Your task to perform on an android device: check the backup settings in the google photos Image 0: 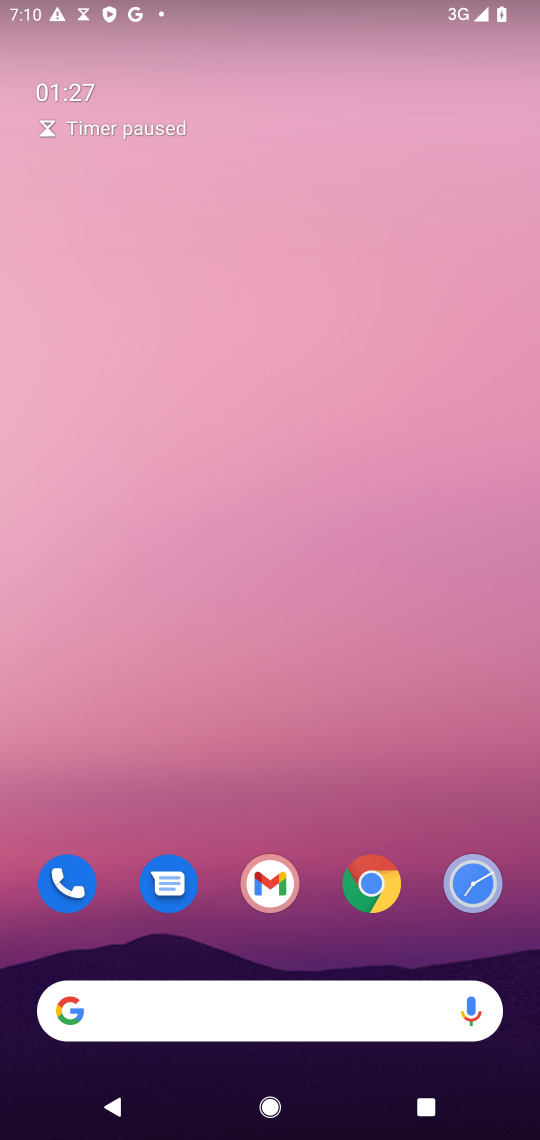
Step 0: drag from (248, 1024) to (409, 118)
Your task to perform on an android device: check the backup settings in the google photos Image 1: 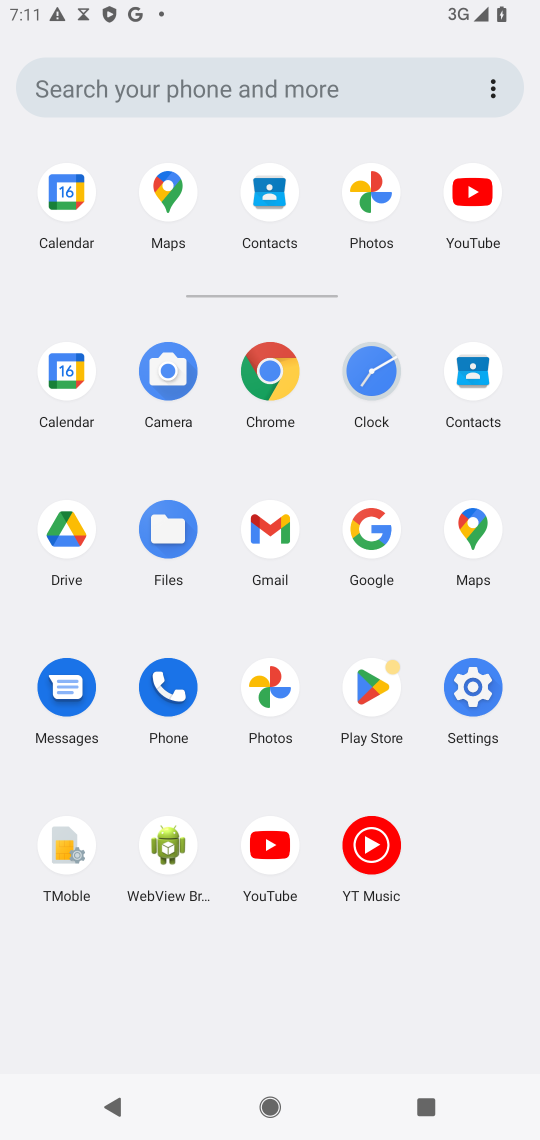
Step 1: click (369, 196)
Your task to perform on an android device: check the backup settings in the google photos Image 2: 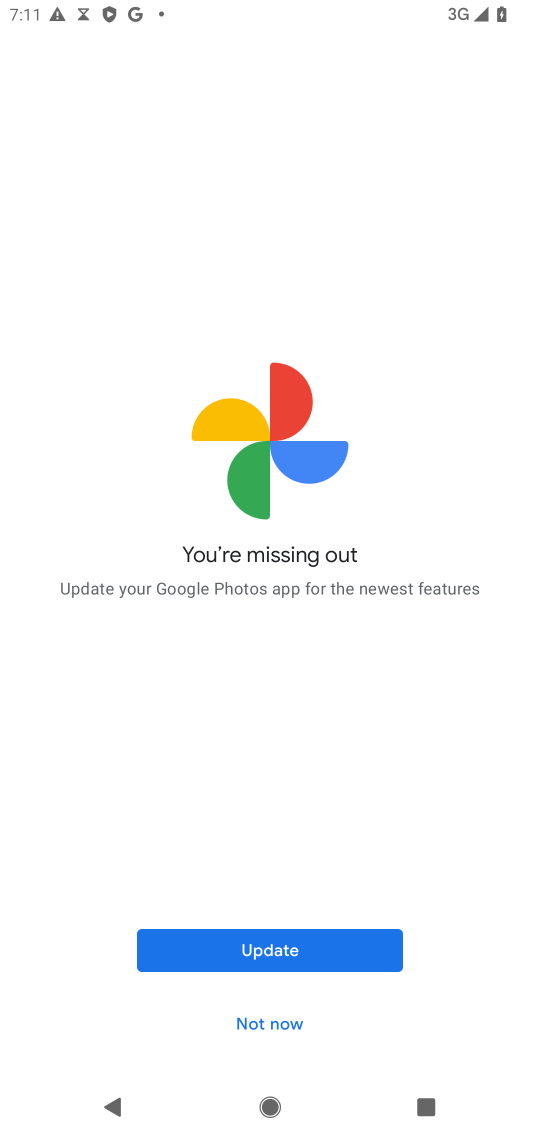
Step 2: click (276, 939)
Your task to perform on an android device: check the backup settings in the google photos Image 3: 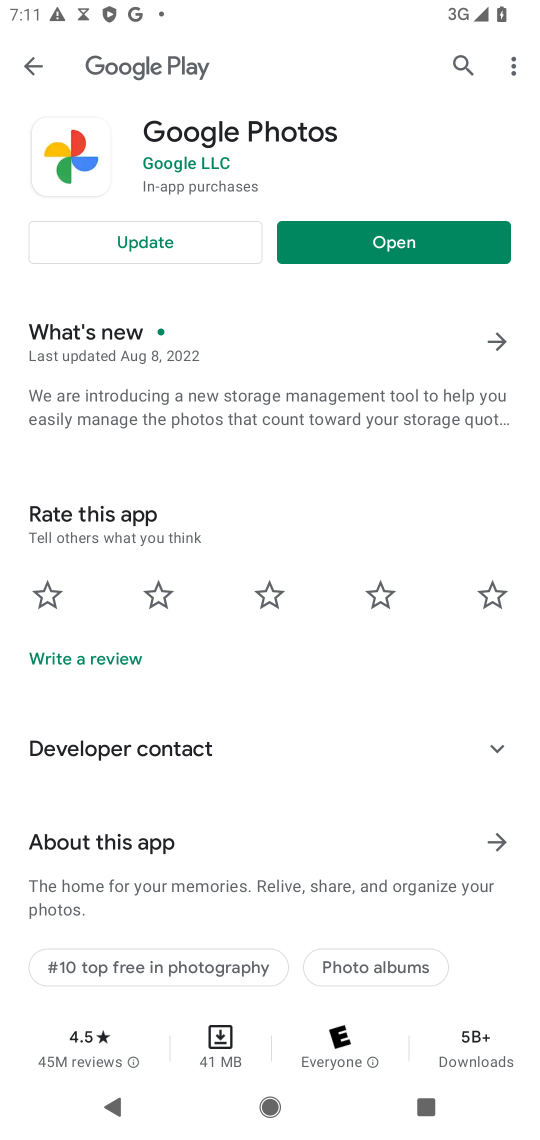
Step 3: click (177, 250)
Your task to perform on an android device: check the backup settings in the google photos Image 4: 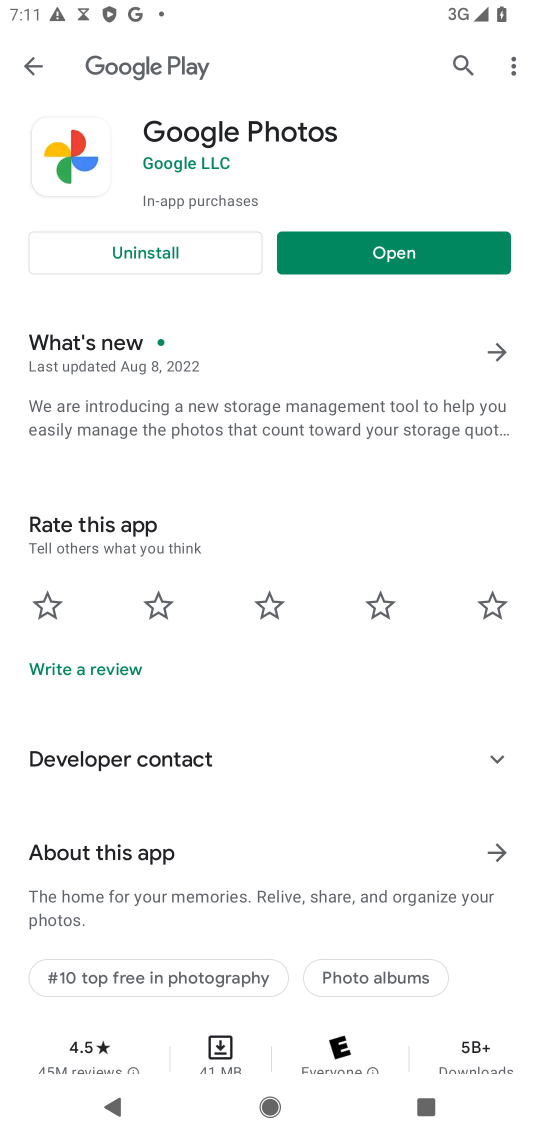
Step 4: click (470, 266)
Your task to perform on an android device: check the backup settings in the google photos Image 5: 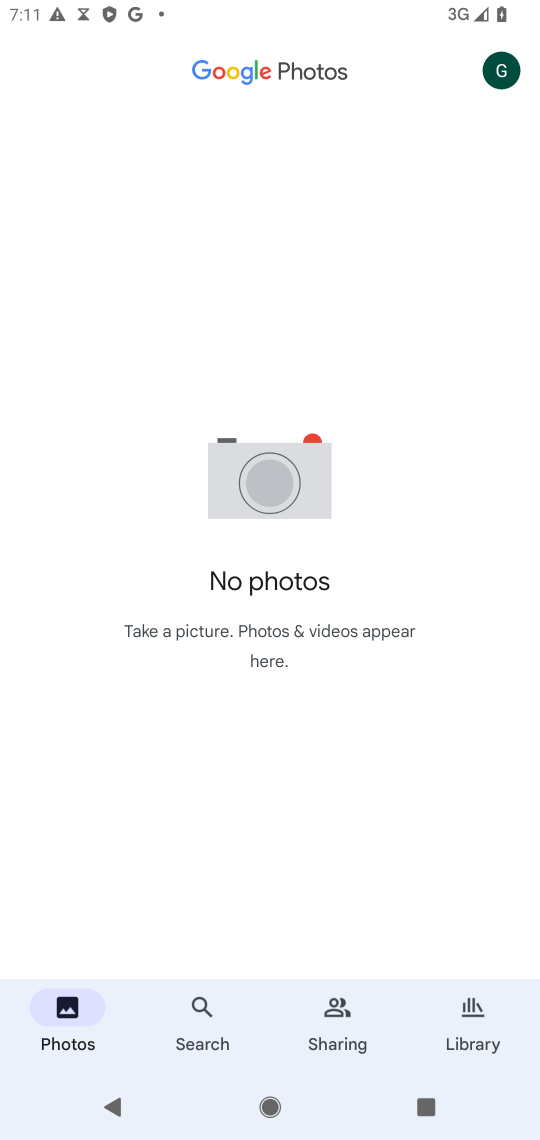
Step 5: click (512, 75)
Your task to perform on an android device: check the backup settings in the google photos Image 6: 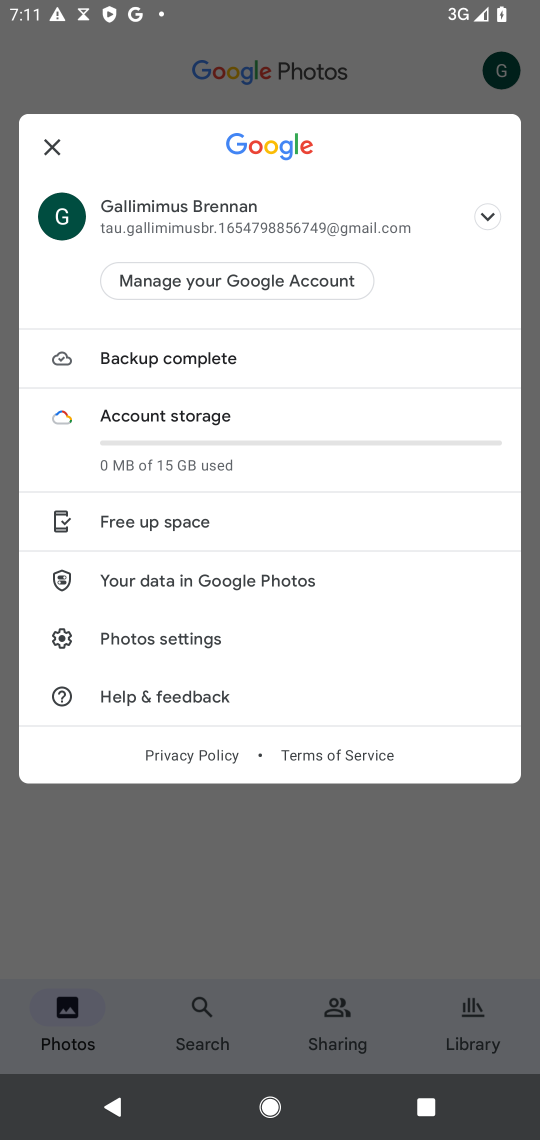
Step 6: click (140, 650)
Your task to perform on an android device: check the backup settings in the google photos Image 7: 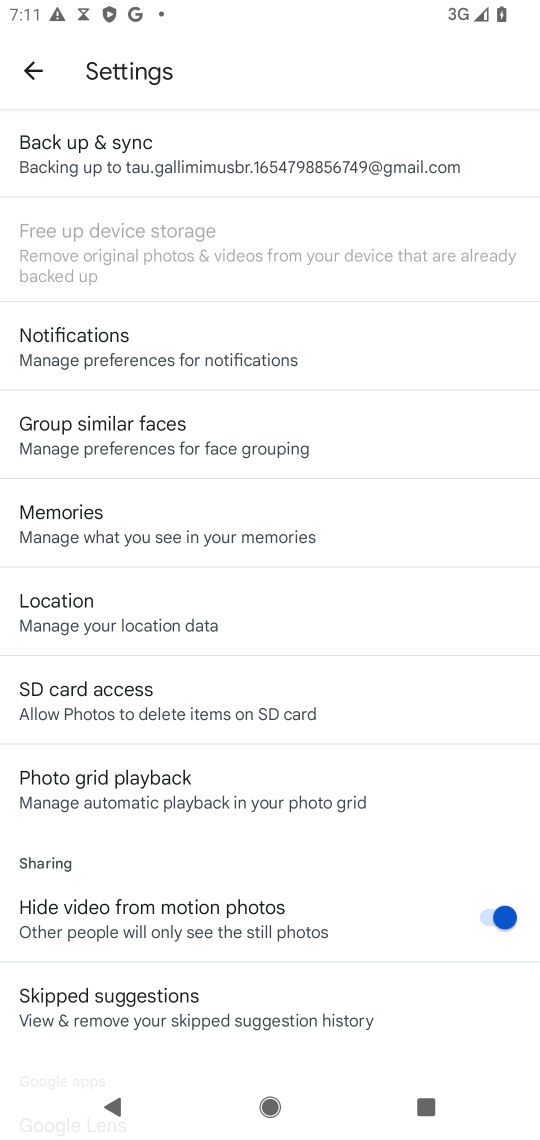
Step 7: click (258, 162)
Your task to perform on an android device: check the backup settings in the google photos Image 8: 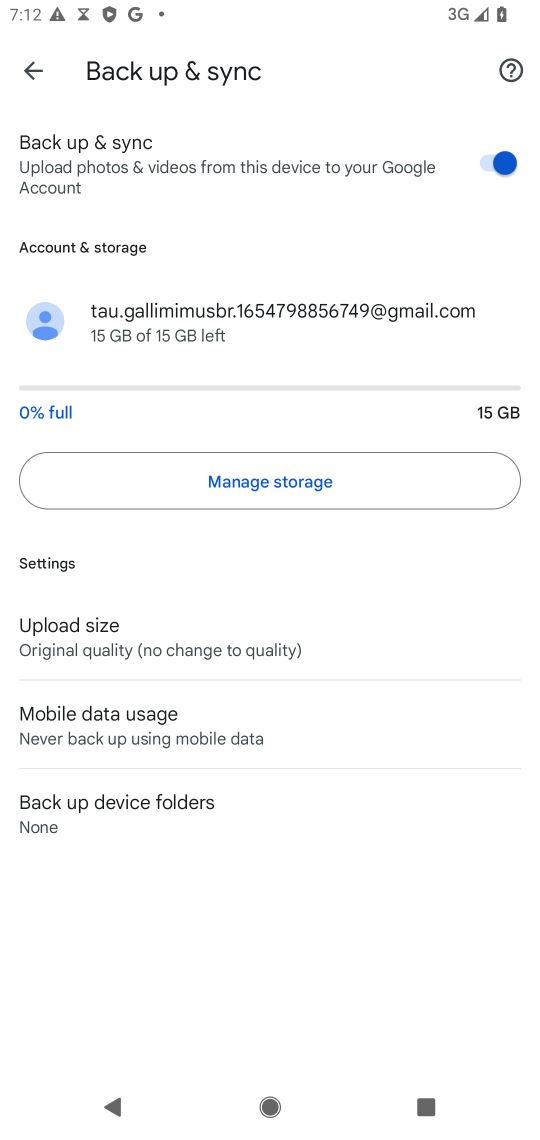
Step 8: task complete